Your task to perform on an android device: turn off translation in the chrome app Image 0: 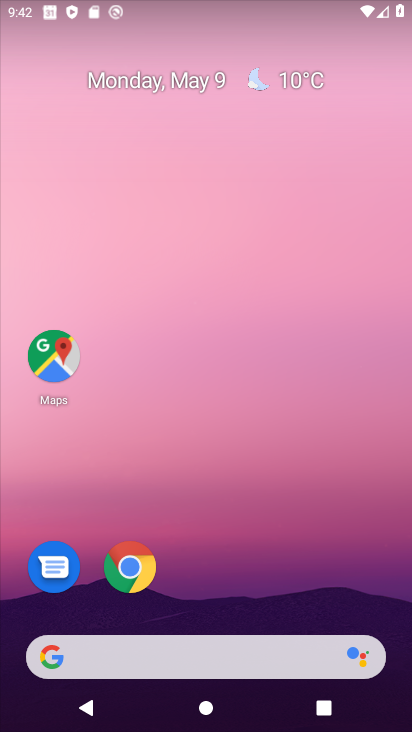
Step 0: click (127, 566)
Your task to perform on an android device: turn off translation in the chrome app Image 1: 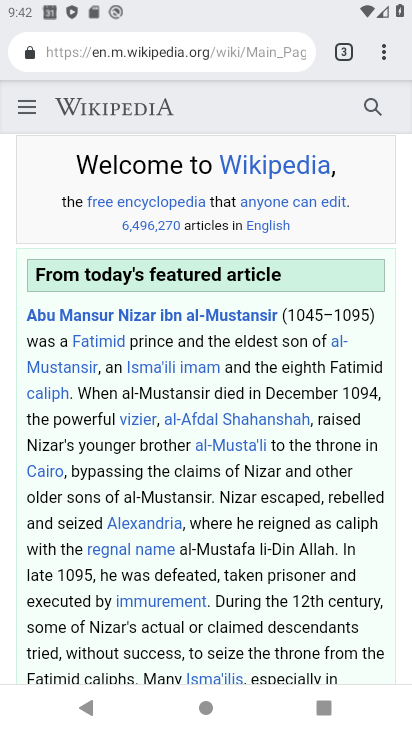
Step 1: click (385, 49)
Your task to perform on an android device: turn off translation in the chrome app Image 2: 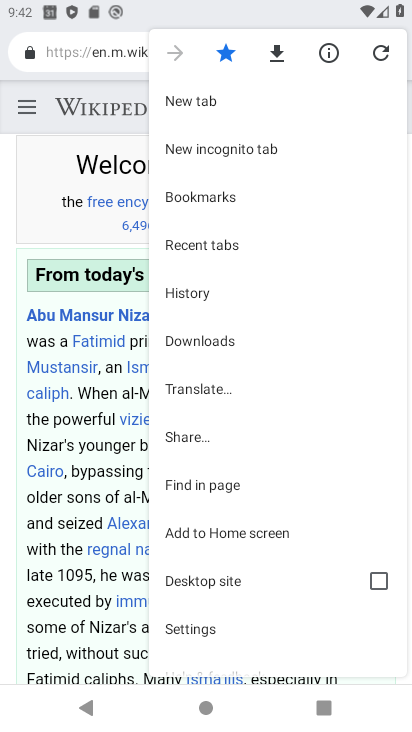
Step 2: click (269, 625)
Your task to perform on an android device: turn off translation in the chrome app Image 3: 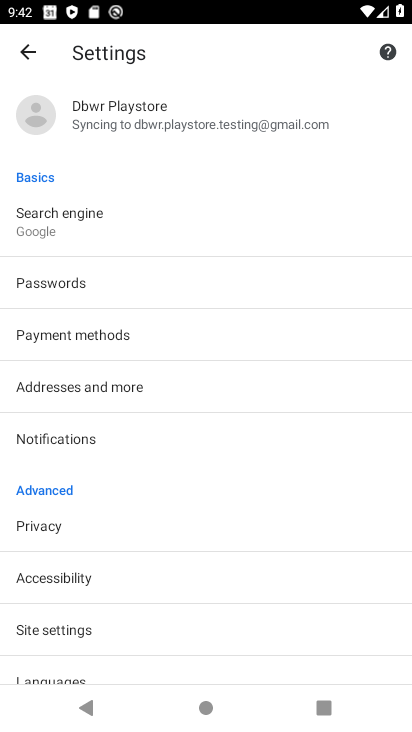
Step 3: click (249, 666)
Your task to perform on an android device: turn off translation in the chrome app Image 4: 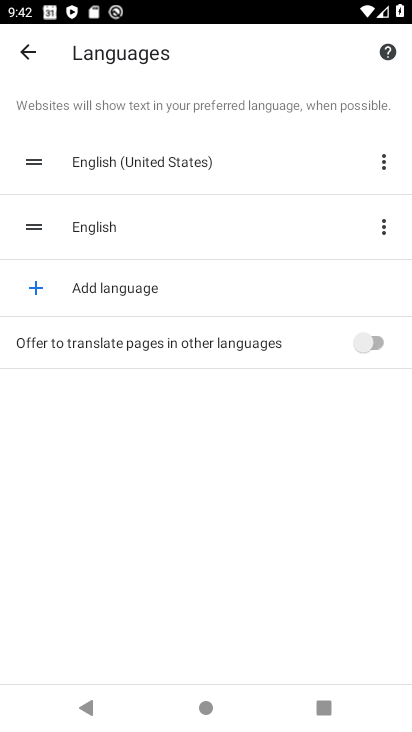
Step 4: task complete